Your task to perform on an android device: delete location history Image 0: 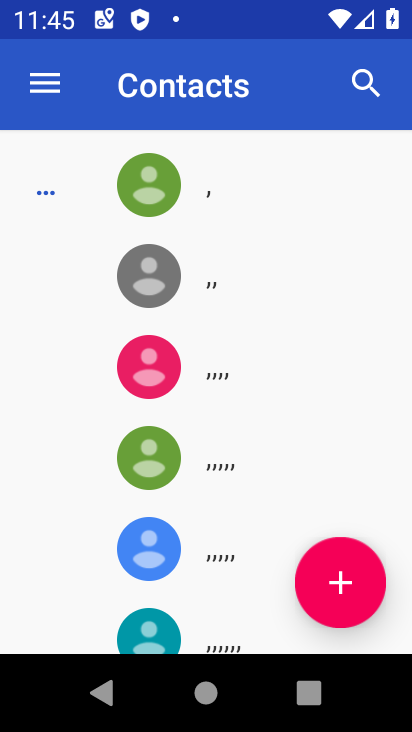
Step 0: press home button
Your task to perform on an android device: delete location history Image 1: 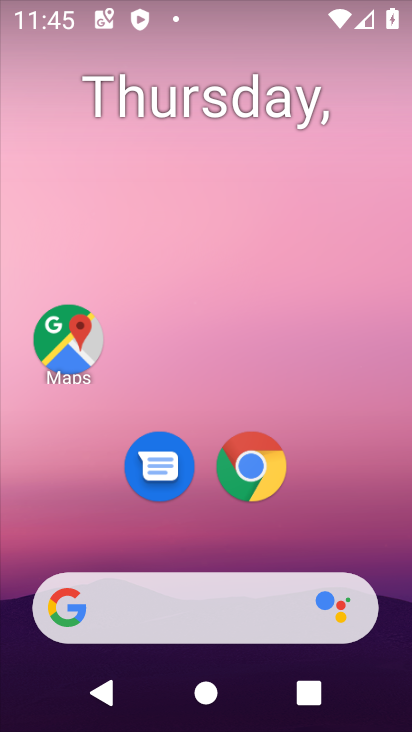
Step 1: drag from (402, 645) to (292, 31)
Your task to perform on an android device: delete location history Image 2: 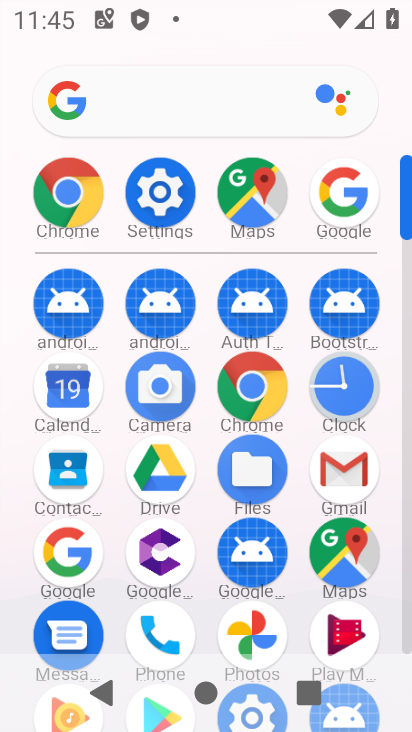
Step 2: click (165, 191)
Your task to perform on an android device: delete location history Image 3: 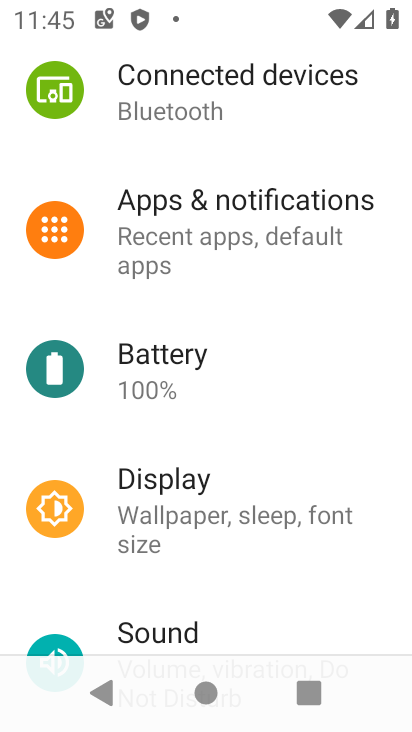
Step 3: drag from (120, 553) to (173, 116)
Your task to perform on an android device: delete location history Image 4: 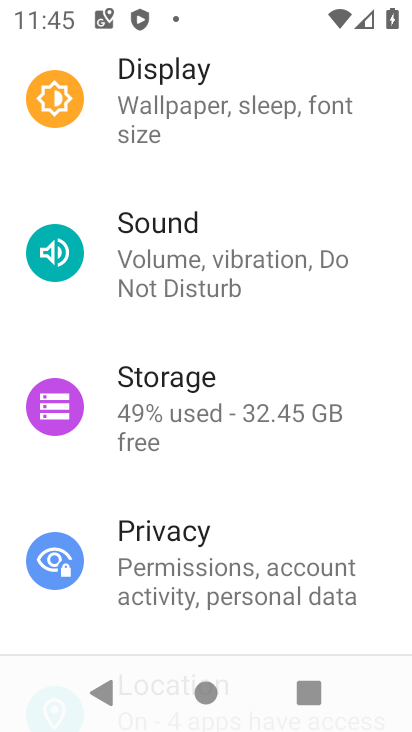
Step 4: drag from (150, 542) to (199, 119)
Your task to perform on an android device: delete location history Image 5: 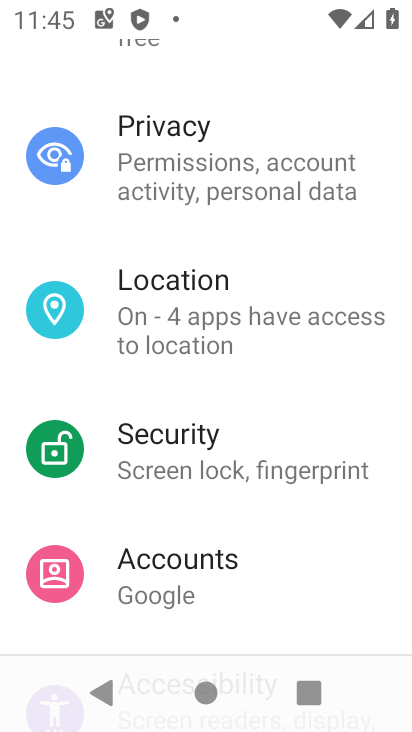
Step 5: click (214, 295)
Your task to perform on an android device: delete location history Image 6: 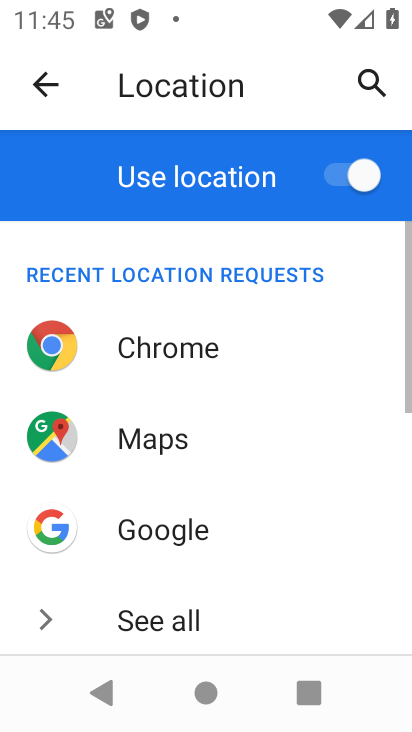
Step 6: drag from (279, 603) to (282, 143)
Your task to perform on an android device: delete location history Image 7: 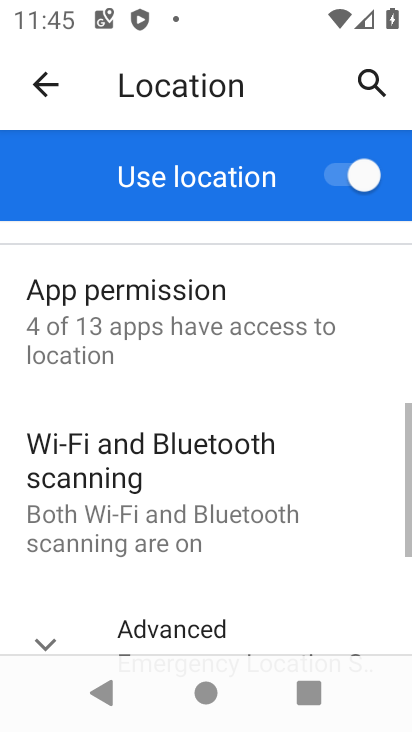
Step 7: drag from (232, 564) to (261, 234)
Your task to perform on an android device: delete location history Image 8: 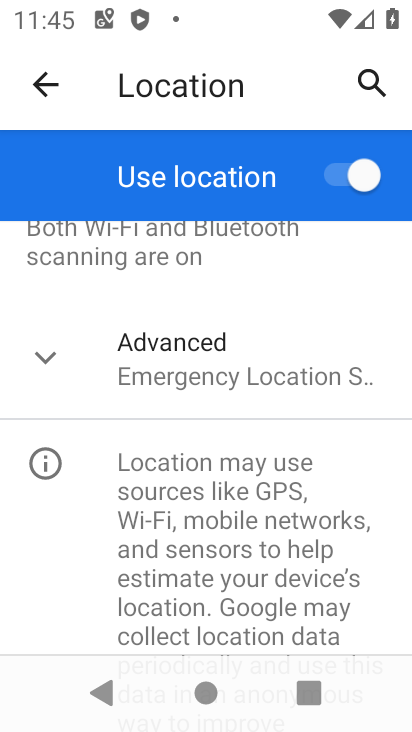
Step 8: click (209, 369)
Your task to perform on an android device: delete location history Image 9: 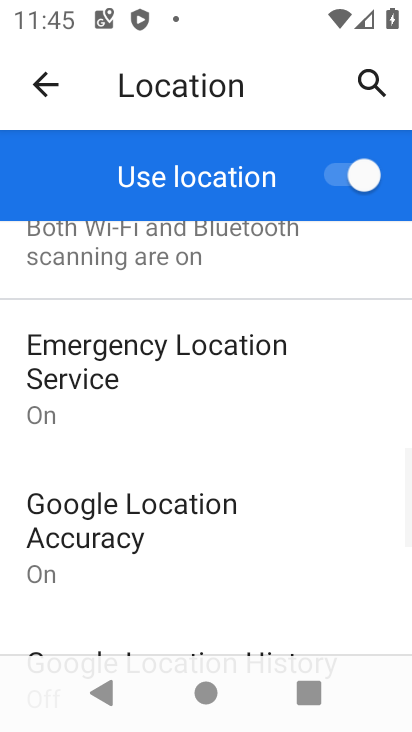
Step 9: drag from (147, 570) to (147, 271)
Your task to perform on an android device: delete location history Image 10: 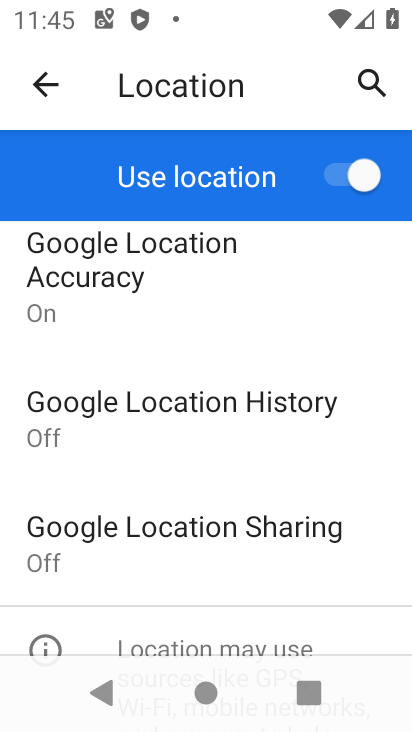
Step 10: click (190, 414)
Your task to perform on an android device: delete location history Image 11: 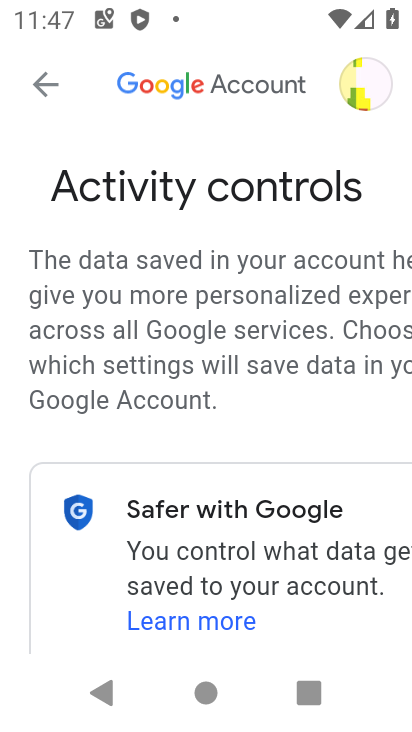
Step 11: drag from (330, 613) to (271, 2)
Your task to perform on an android device: delete location history Image 12: 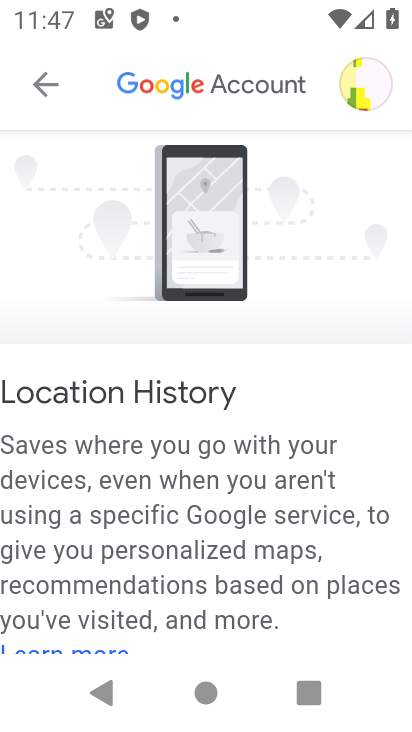
Step 12: drag from (289, 554) to (289, 154)
Your task to perform on an android device: delete location history Image 13: 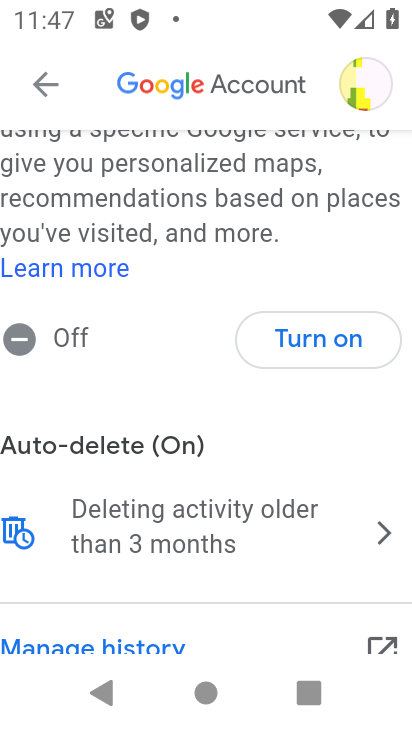
Step 13: click (178, 512)
Your task to perform on an android device: delete location history Image 14: 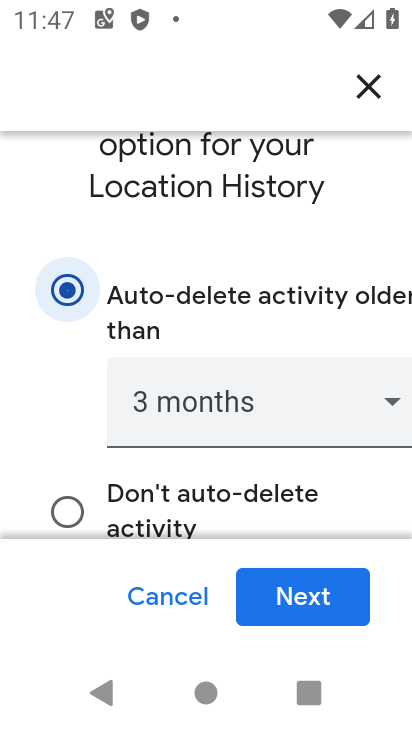
Step 14: click (342, 611)
Your task to perform on an android device: delete location history Image 15: 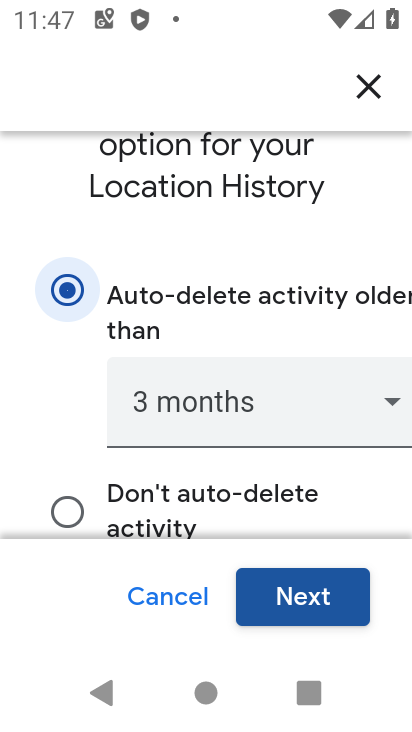
Step 15: click (309, 602)
Your task to perform on an android device: delete location history Image 16: 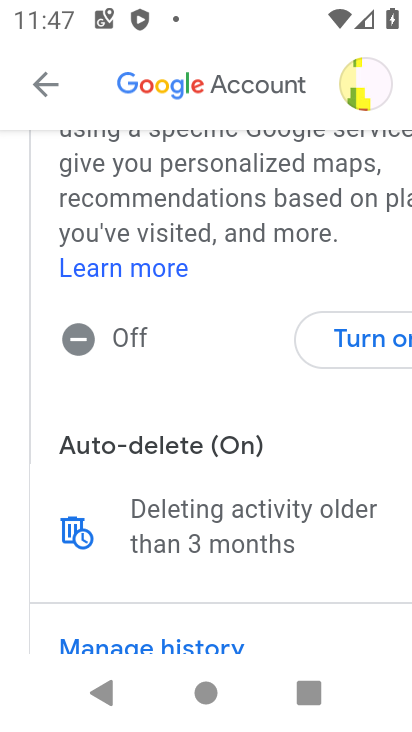
Step 16: task complete